Your task to perform on an android device: Open Wikipedia Image 0: 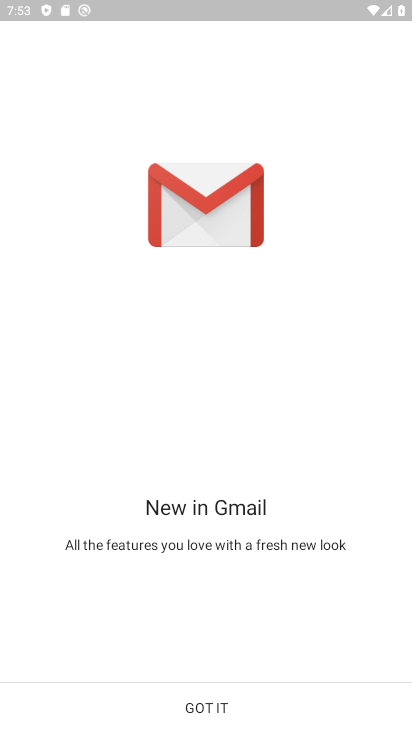
Step 0: press home button
Your task to perform on an android device: Open Wikipedia Image 1: 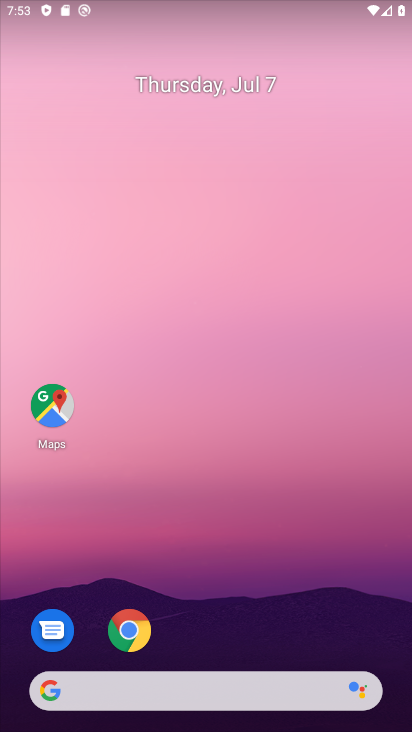
Step 1: click (118, 625)
Your task to perform on an android device: Open Wikipedia Image 2: 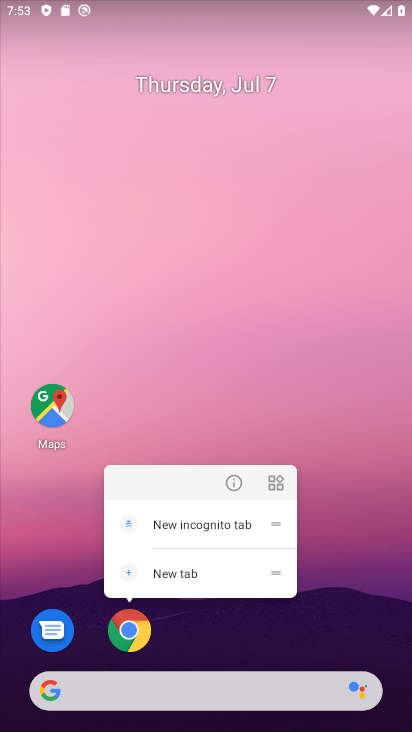
Step 2: click (130, 619)
Your task to perform on an android device: Open Wikipedia Image 3: 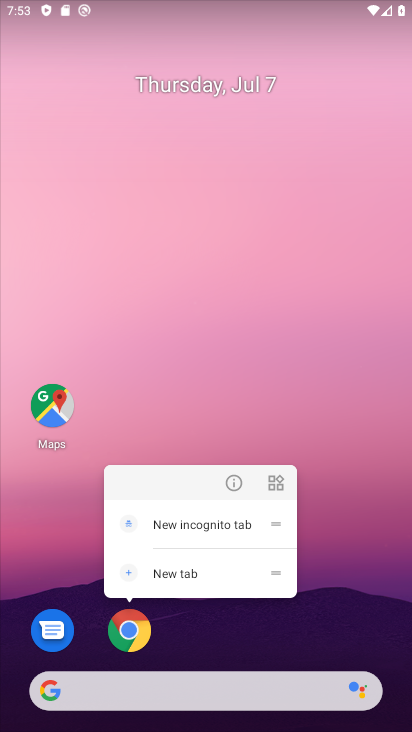
Step 3: click (134, 632)
Your task to perform on an android device: Open Wikipedia Image 4: 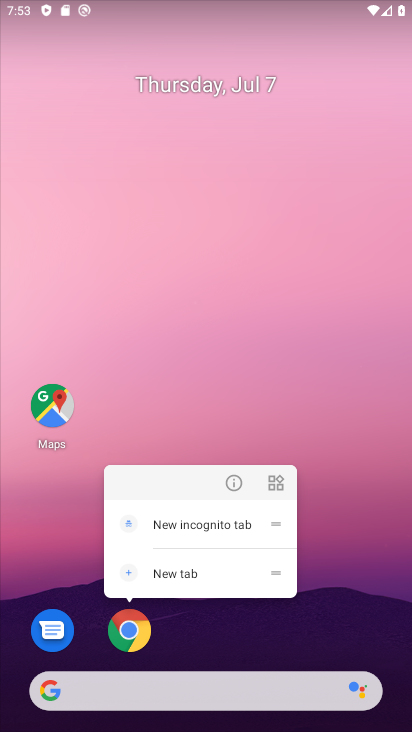
Step 4: click (122, 642)
Your task to perform on an android device: Open Wikipedia Image 5: 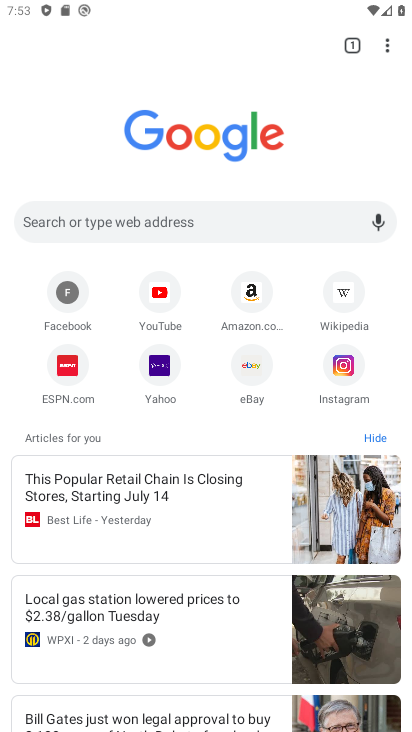
Step 5: click (337, 292)
Your task to perform on an android device: Open Wikipedia Image 6: 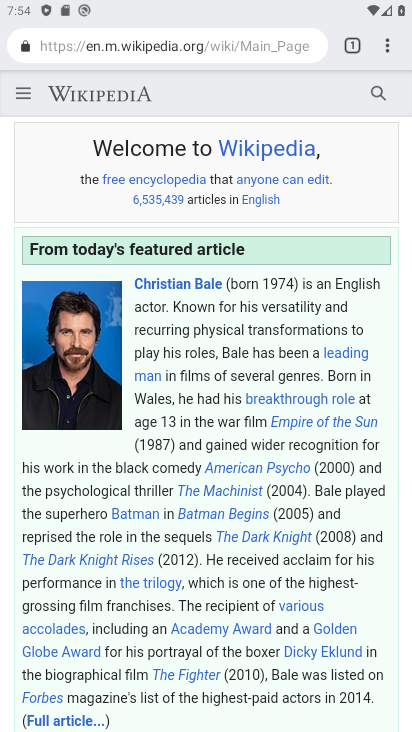
Step 6: task complete